Your task to perform on an android device: turn off improve location accuracy Image 0: 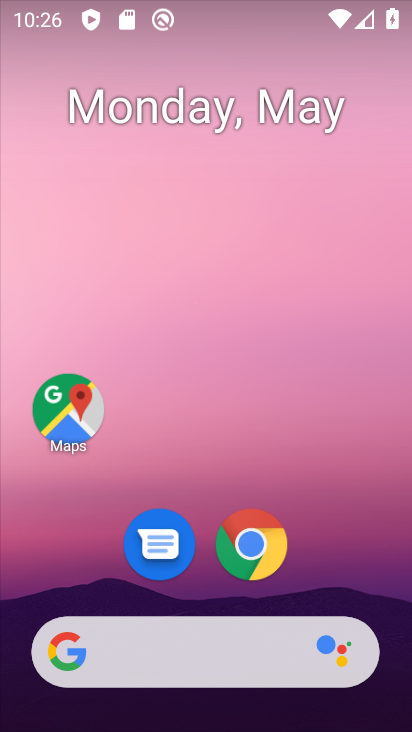
Step 0: drag from (394, 604) to (367, 146)
Your task to perform on an android device: turn off improve location accuracy Image 1: 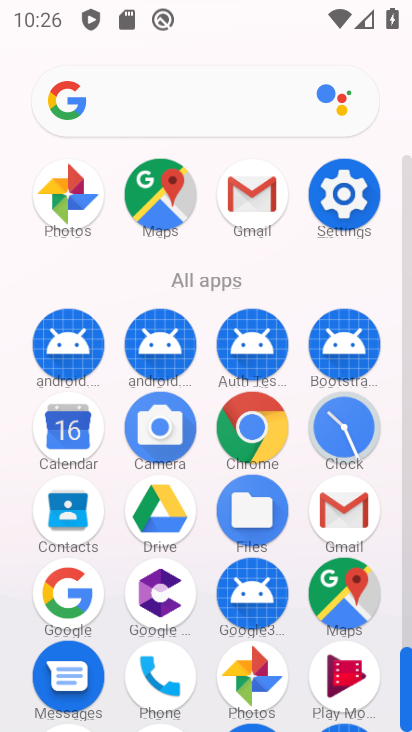
Step 1: click (350, 190)
Your task to perform on an android device: turn off improve location accuracy Image 2: 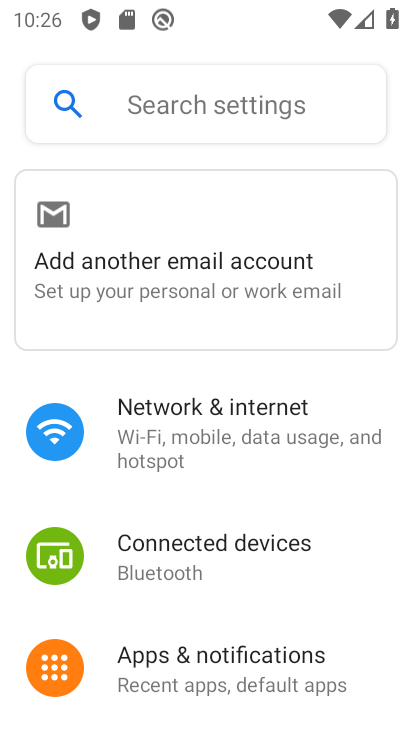
Step 2: drag from (307, 621) to (372, 139)
Your task to perform on an android device: turn off improve location accuracy Image 3: 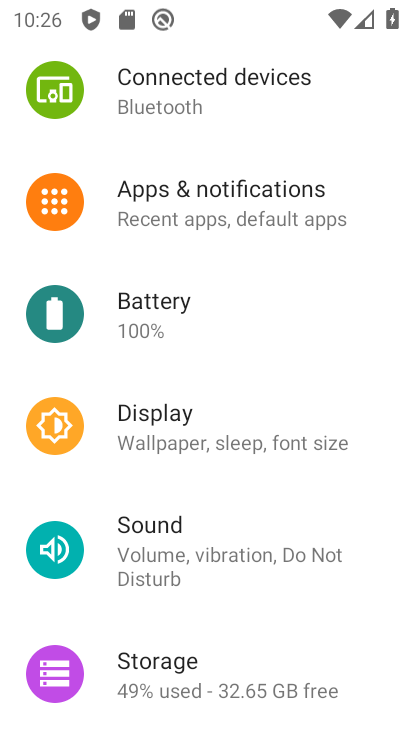
Step 3: drag from (275, 642) to (305, 349)
Your task to perform on an android device: turn off improve location accuracy Image 4: 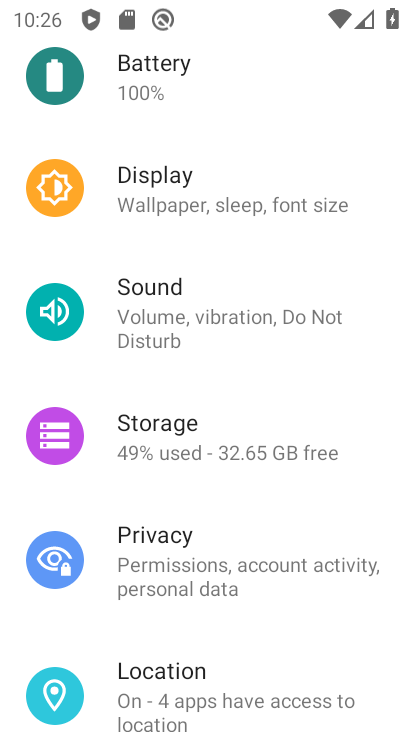
Step 4: click (282, 674)
Your task to perform on an android device: turn off improve location accuracy Image 5: 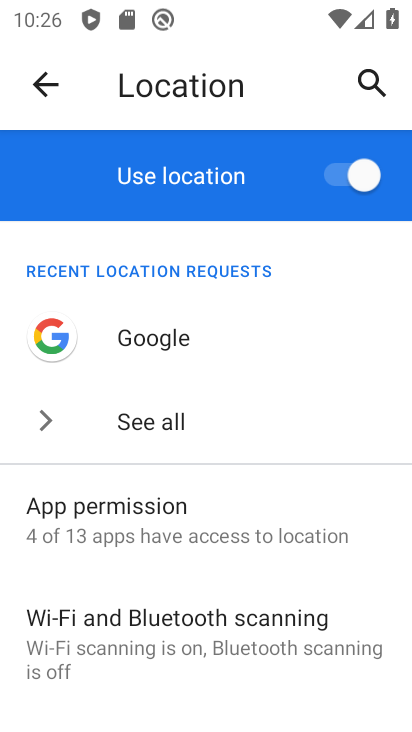
Step 5: drag from (282, 674) to (280, 220)
Your task to perform on an android device: turn off improve location accuracy Image 6: 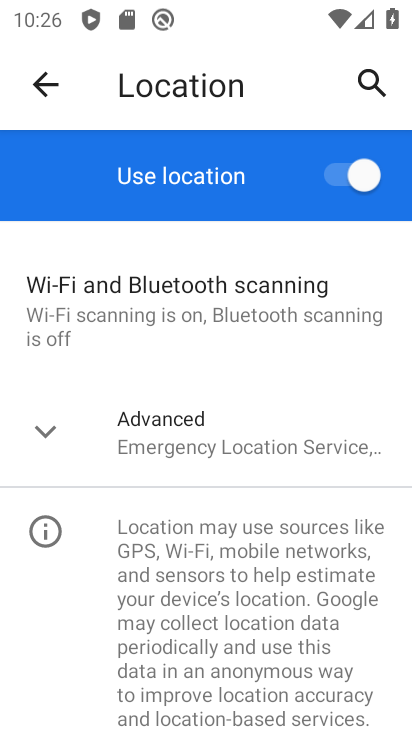
Step 6: click (286, 452)
Your task to perform on an android device: turn off improve location accuracy Image 7: 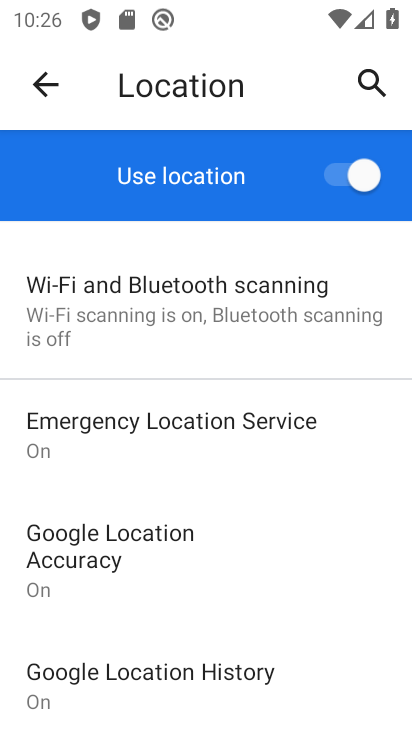
Step 7: click (273, 578)
Your task to perform on an android device: turn off improve location accuracy Image 8: 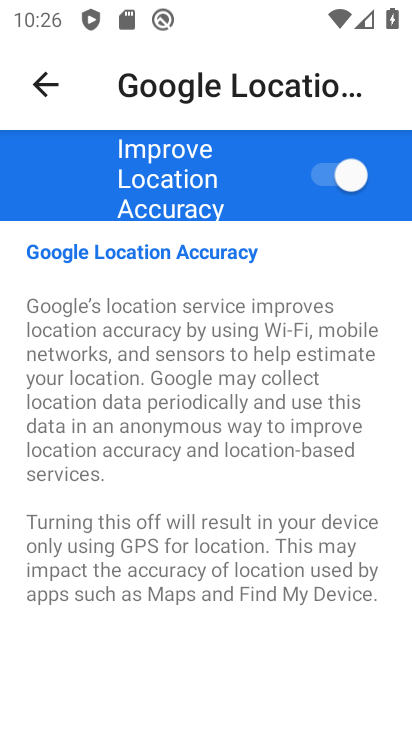
Step 8: click (332, 176)
Your task to perform on an android device: turn off improve location accuracy Image 9: 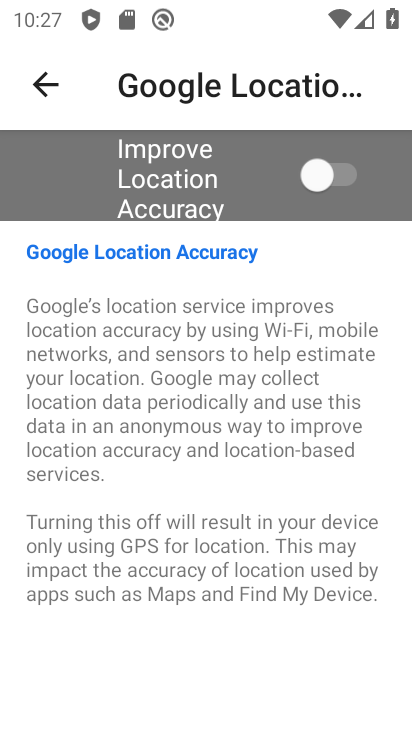
Step 9: task complete